Your task to perform on an android device: Open internet settings Image 0: 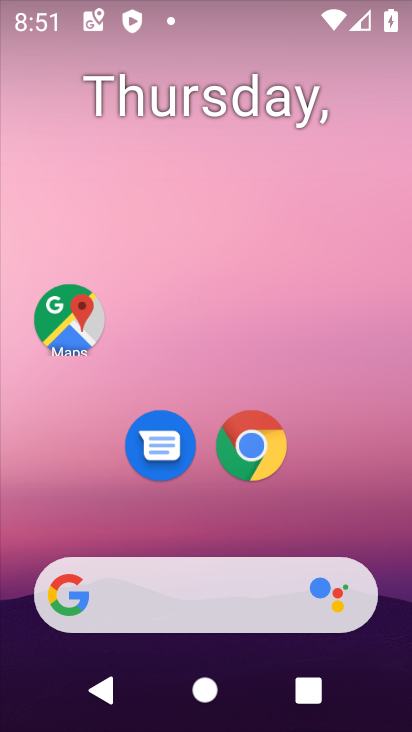
Step 0: drag from (198, 534) to (229, 191)
Your task to perform on an android device: Open internet settings Image 1: 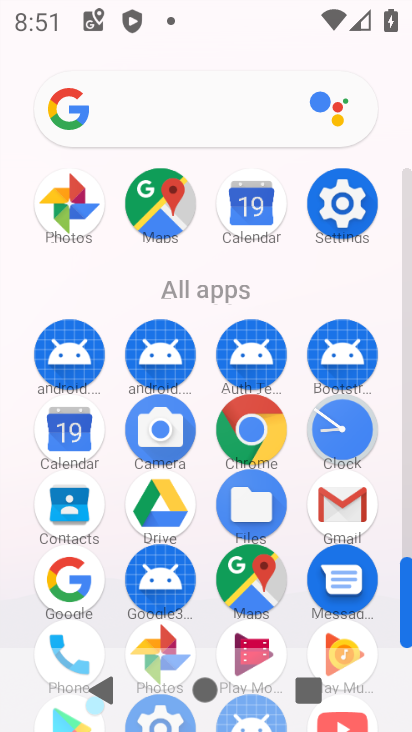
Step 1: click (334, 233)
Your task to perform on an android device: Open internet settings Image 2: 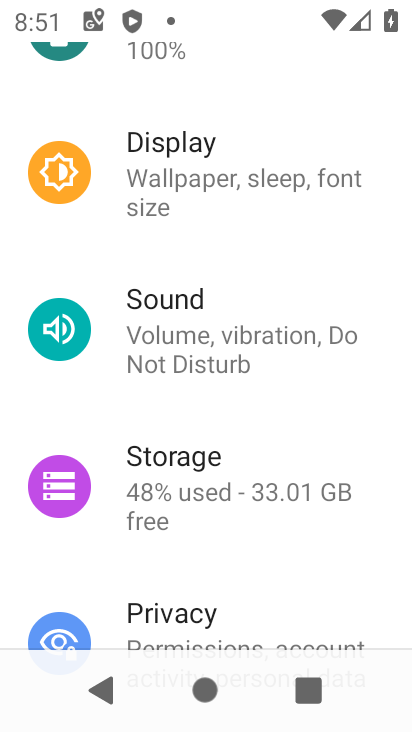
Step 2: drag from (298, 326) to (274, 492)
Your task to perform on an android device: Open internet settings Image 3: 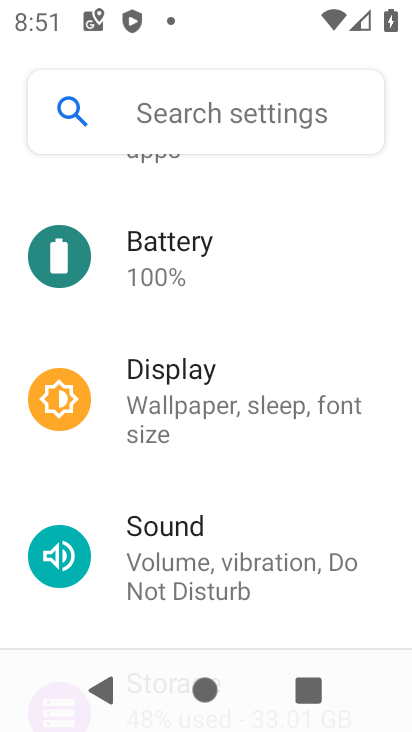
Step 3: drag from (246, 347) to (176, 672)
Your task to perform on an android device: Open internet settings Image 4: 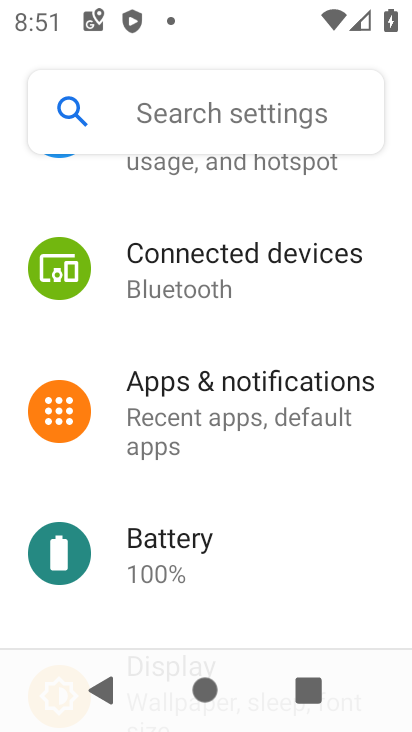
Step 4: drag from (196, 220) to (186, 487)
Your task to perform on an android device: Open internet settings Image 5: 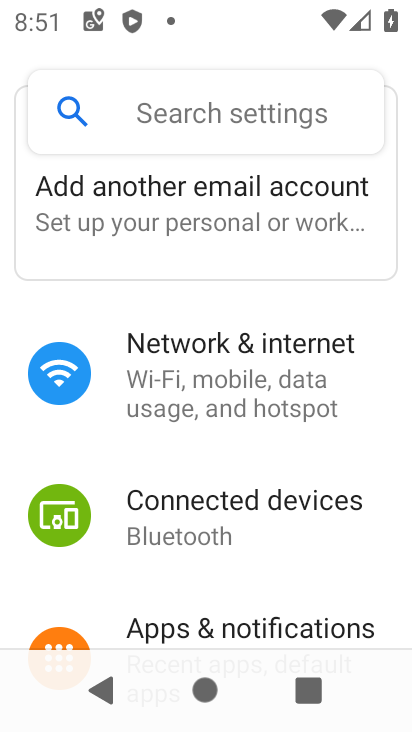
Step 5: click (195, 346)
Your task to perform on an android device: Open internet settings Image 6: 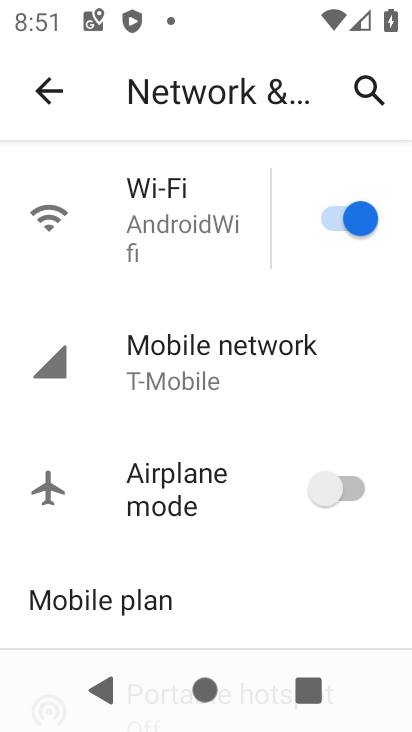
Step 6: task complete